Your task to perform on an android device: check data usage Image 0: 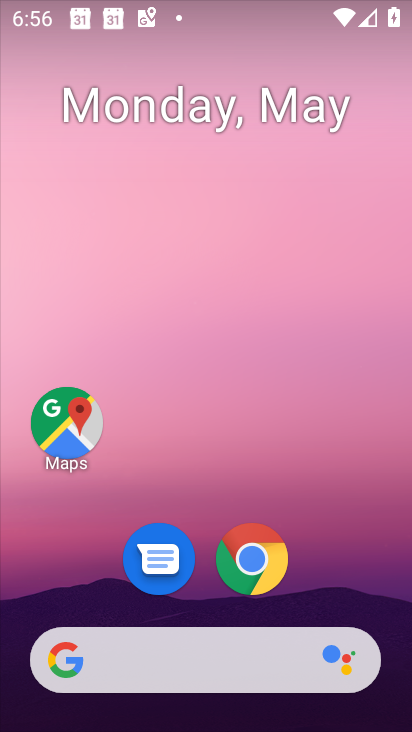
Step 0: drag from (385, 668) to (315, 61)
Your task to perform on an android device: check data usage Image 1: 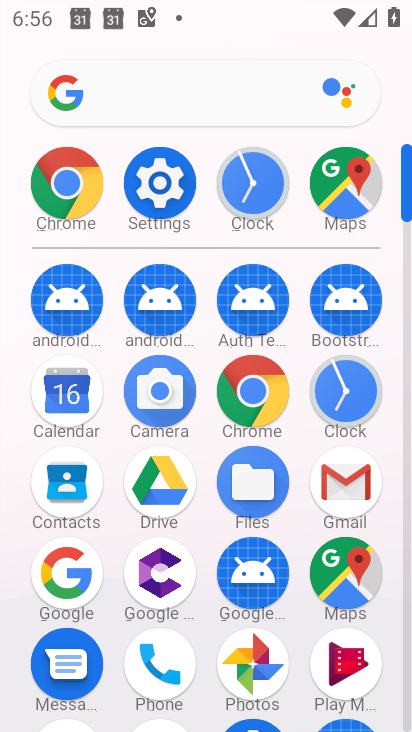
Step 1: click (155, 196)
Your task to perform on an android device: check data usage Image 2: 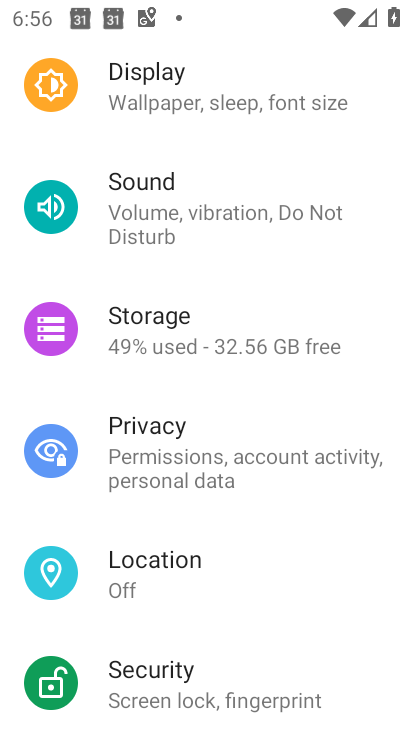
Step 2: drag from (164, 626) to (191, 47)
Your task to perform on an android device: check data usage Image 3: 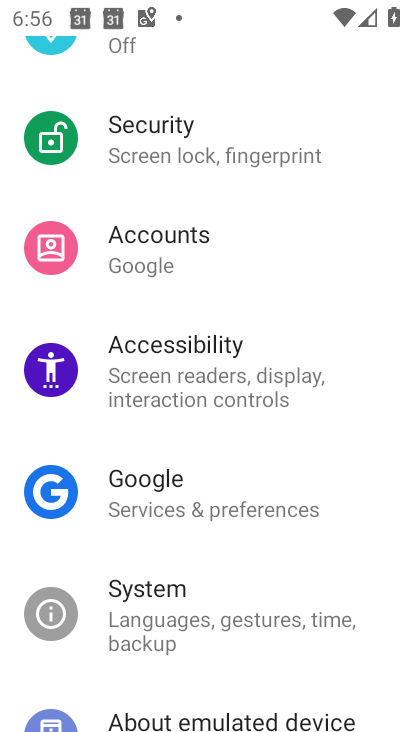
Step 3: drag from (244, 201) to (74, 718)
Your task to perform on an android device: check data usage Image 4: 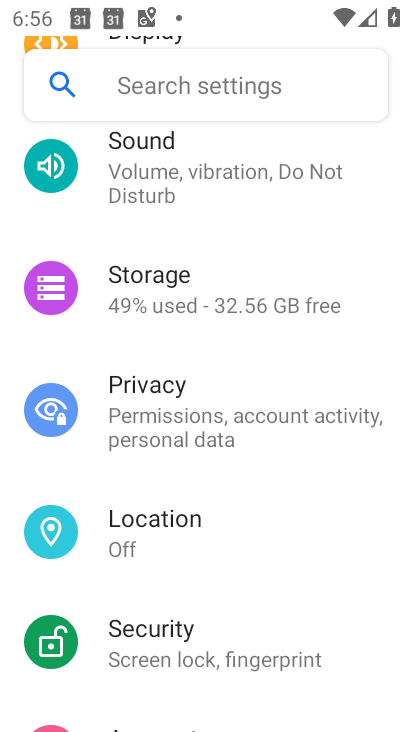
Step 4: drag from (196, 212) to (226, 717)
Your task to perform on an android device: check data usage Image 5: 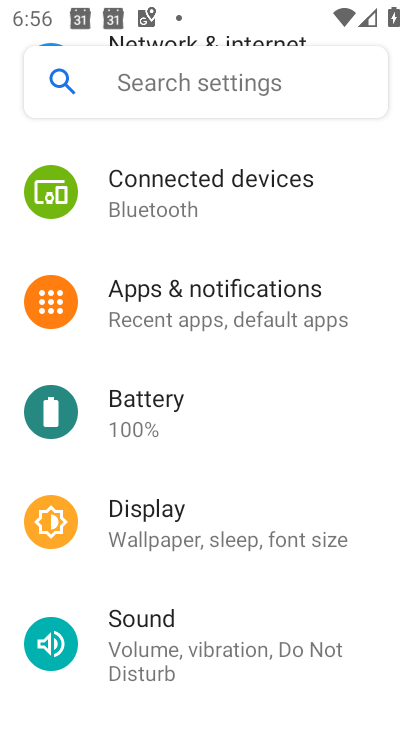
Step 5: drag from (242, 253) to (302, 728)
Your task to perform on an android device: check data usage Image 6: 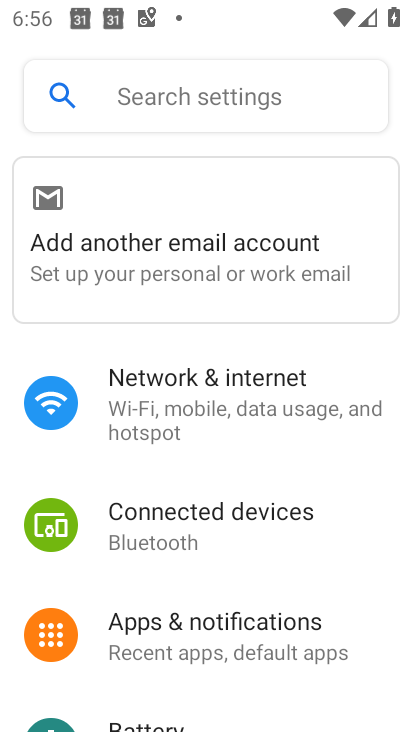
Step 6: click (233, 390)
Your task to perform on an android device: check data usage Image 7: 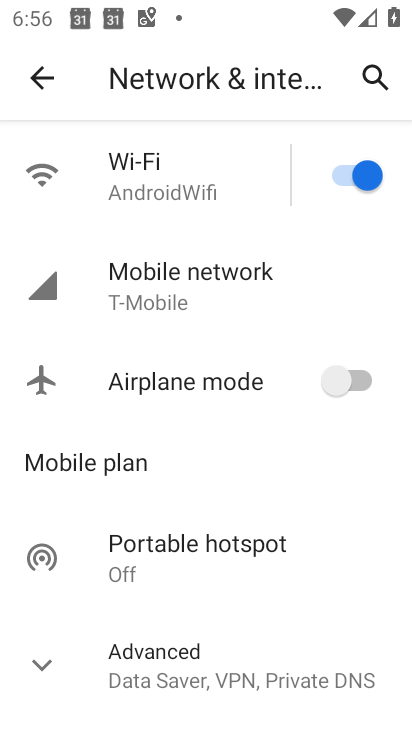
Step 7: click (169, 277)
Your task to perform on an android device: check data usage Image 8: 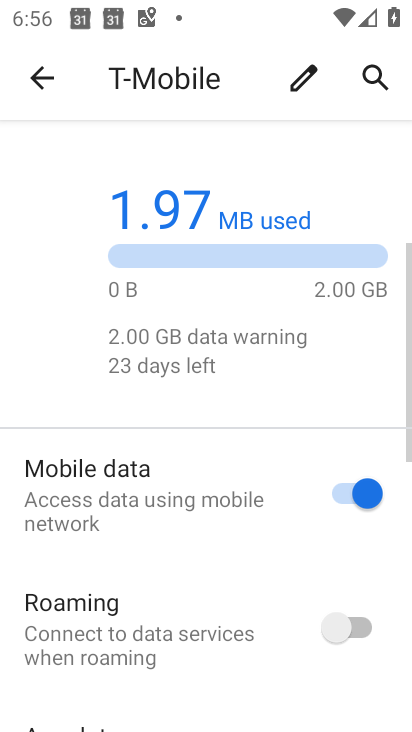
Step 8: drag from (173, 646) to (172, 215)
Your task to perform on an android device: check data usage Image 9: 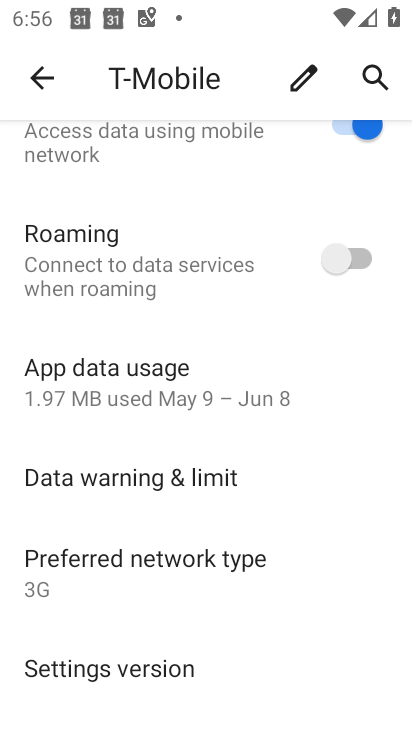
Step 9: click (166, 415)
Your task to perform on an android device: check data usage Image 10: 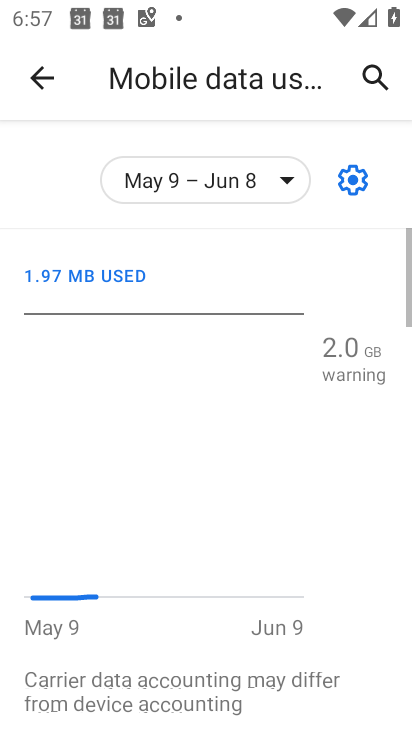
Step 10: task complete